Your task to perform on an android device: Check the settings for the Google Play Books app Image 0: 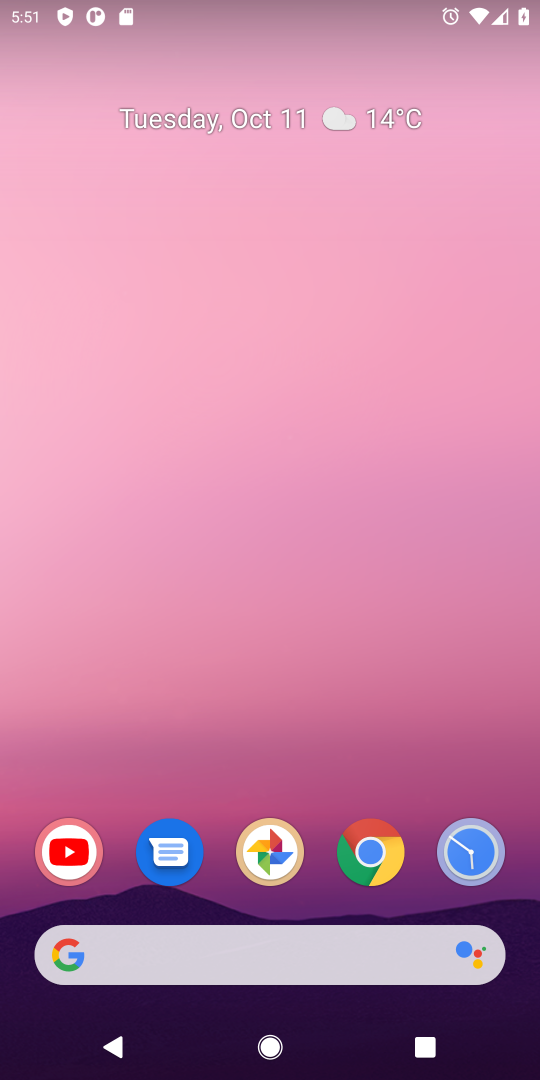
Step 0: drag from (395, 755) to (283, 182)
Your task to perform on an android device: Check the settings for the Google Play Books app Image 1: 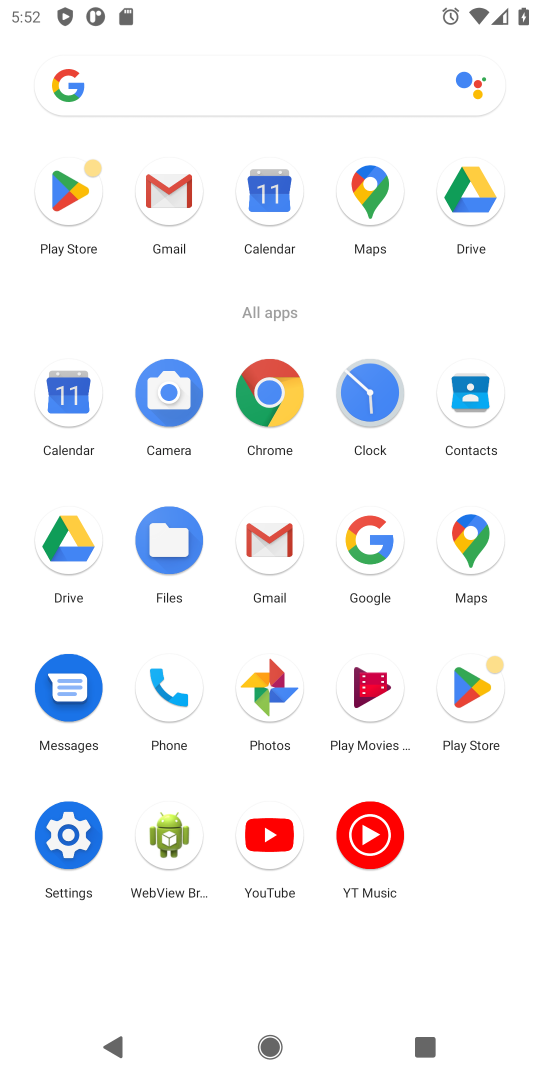
Step 1: task complete